Your task to perform on an android device: turn notification dots on Image 0: 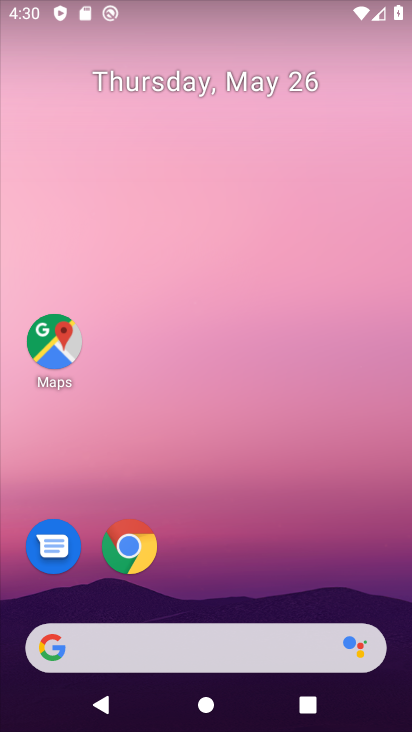
Step 0: drag from (269, 573) to (140, 7)
Your task to perform on an android device: turn notification dots on Image 1: 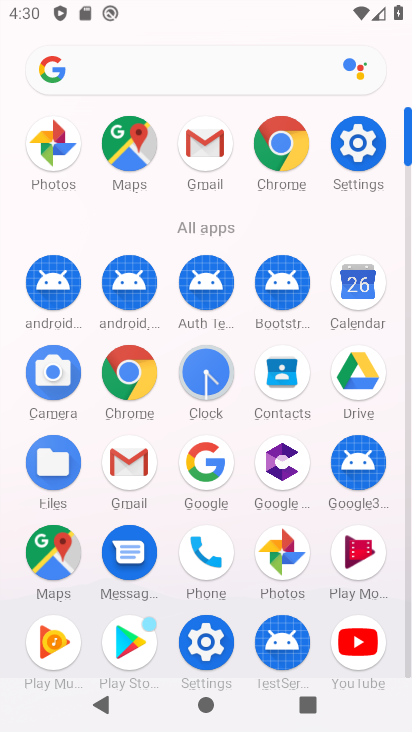
Step 1: click (351, 162)
Your task to perform on an android device: turn notification dots on Image 2: 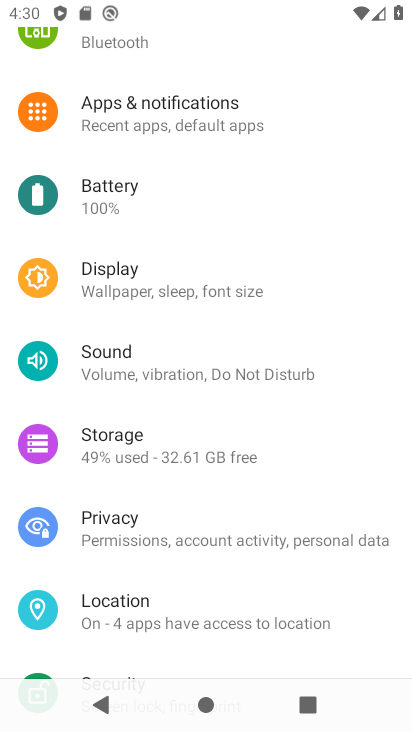
Step 2: click (218, 135)
Your task to perform on an android device: turn notification dots on Image 3: 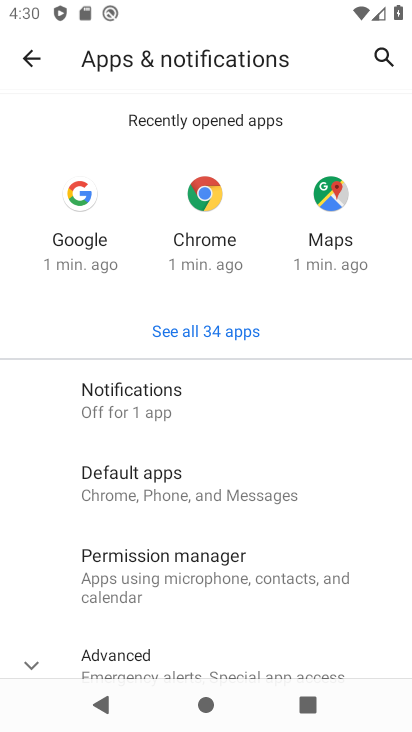
Step 3: click (239, 390)
Your task to perform on an android device: turn notification dots on Image 4: 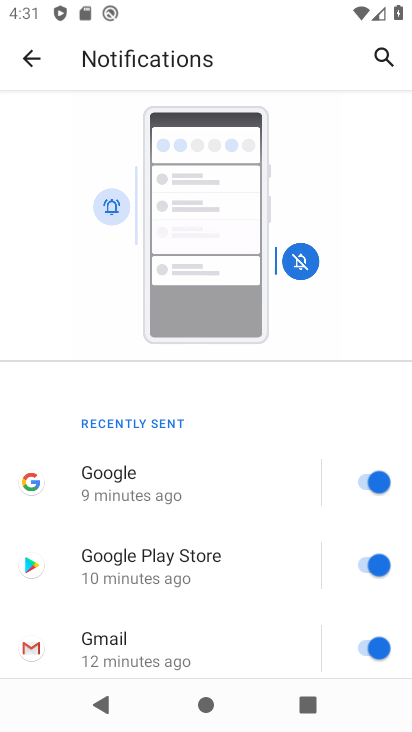
Step 4: drag from (246, 627) to (75, 127)
Your task to perform on an android device: turn notification dots on Image 5: 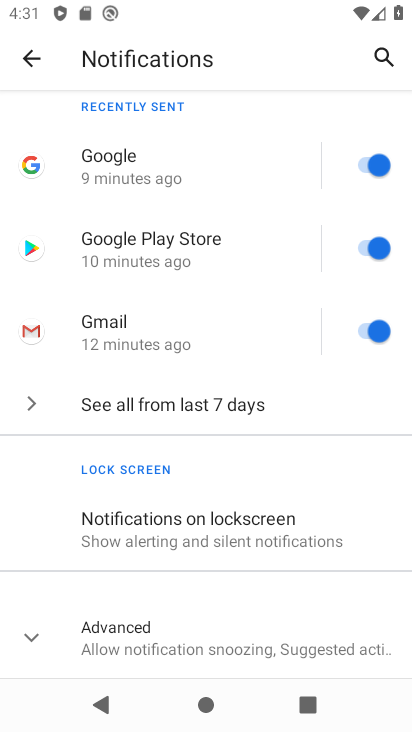
Step 5: click (240, 648)
Your task to perform on an android device: turn notification dots on Image 6: 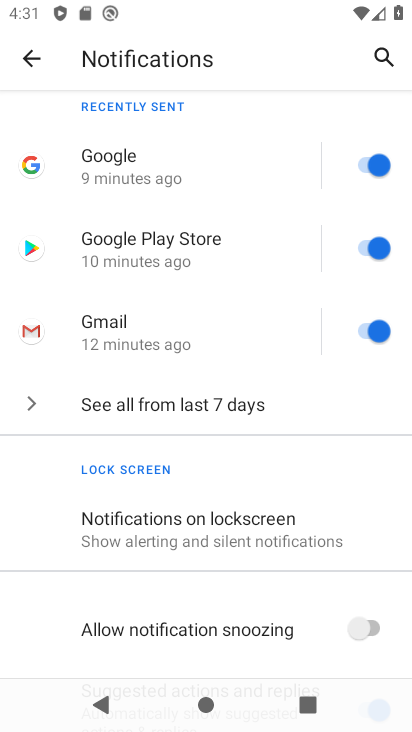
Step 6: task complete